Your task to perform on an android device: toggle sleep mode Image 0: 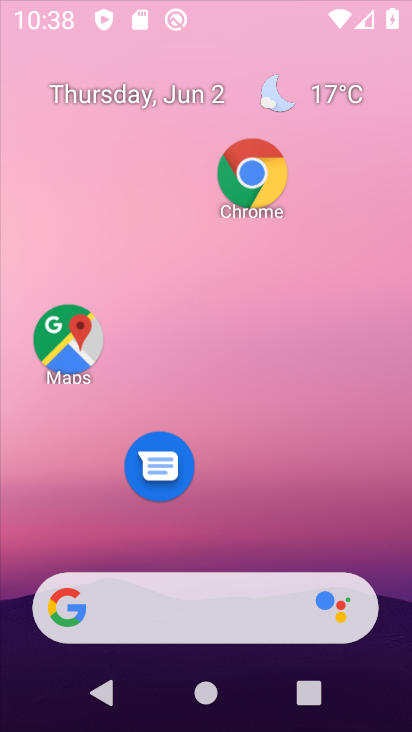
Step 0: press home button
Your task to perform on an android device: toggle sleep mode Image 1: 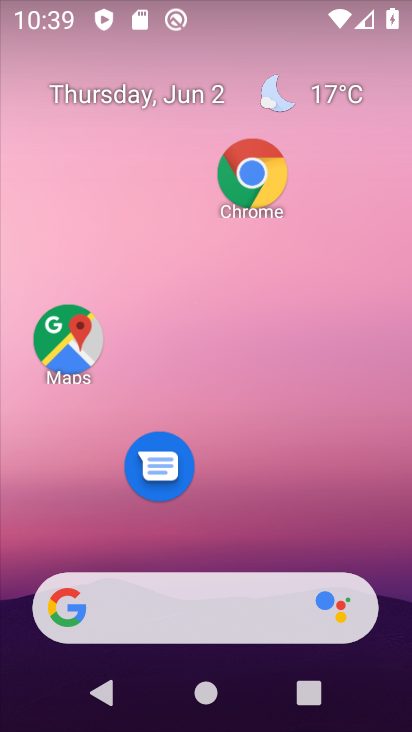
Step 1: drag from (233, 553) to (201, 109)
Your task to perform on an android device: toggle sleep mode Image 2: 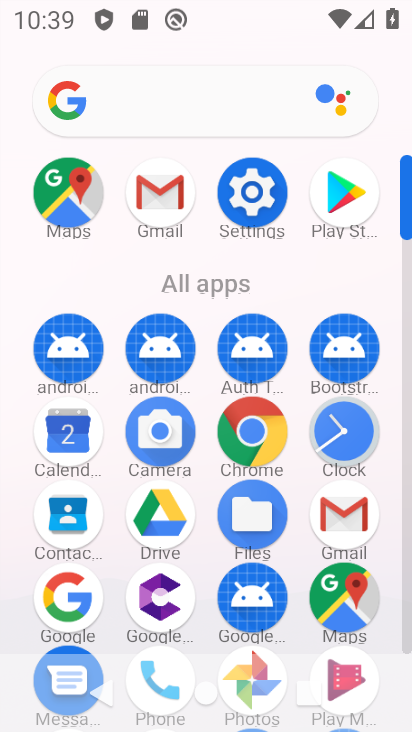
Step 2: click (256, 206)
Your task to perform on an android device: toggle sleep mode Image 3: 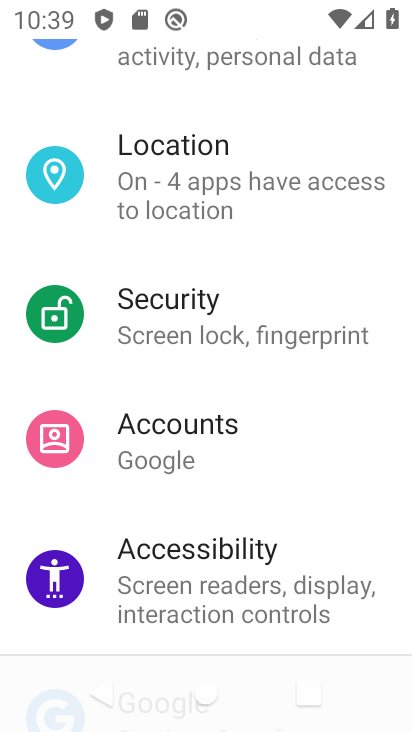
Step 3: drag from (291, 121) to (298, 478)
Your task to perform on an android device: toggle sleep mode Image 4: 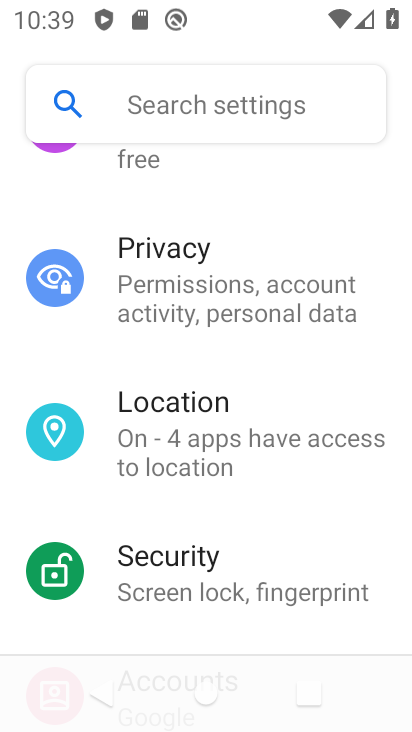
Step 4: drag from (292, 227) to (290, 609)
Your task to perform on an android device: toggle sleep mode Image 5: 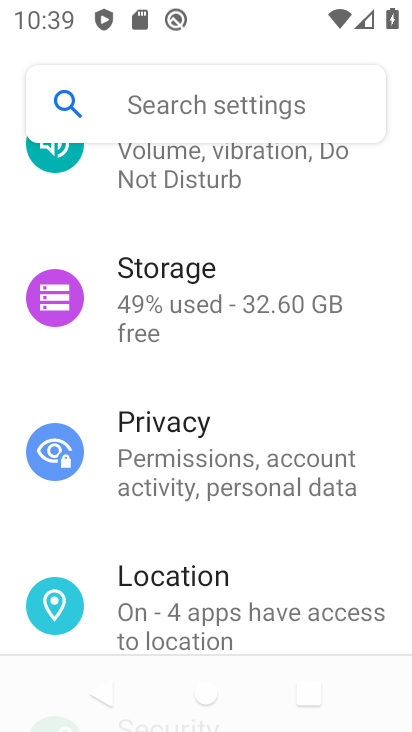
Step 5: drag from (303, 201) to (311, 487)
Your task to perform on an android device: toggle sleep mode Image 6: 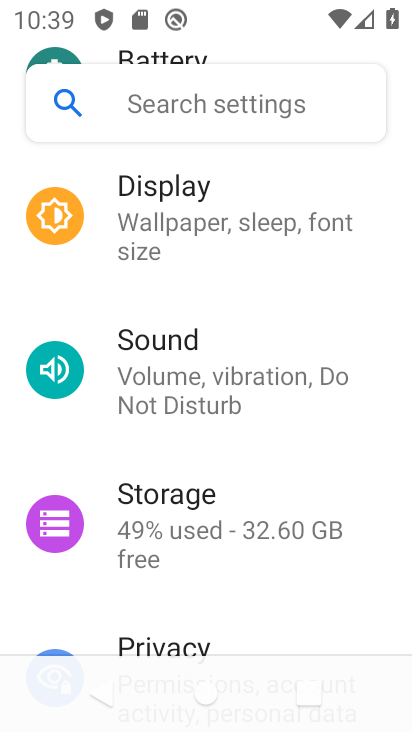
Step 6: click (163, 199)
Your task to perform on an android device: toggle sleep mode Image 7: 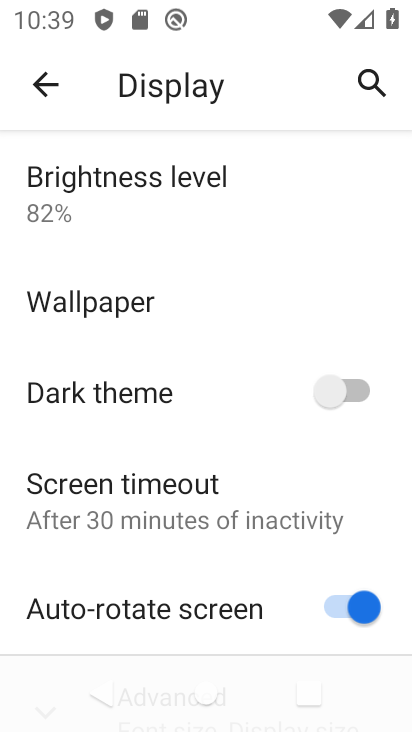
Step 7: task complete